Your task to perform on an android device: open sync settings in chrome Image 0: 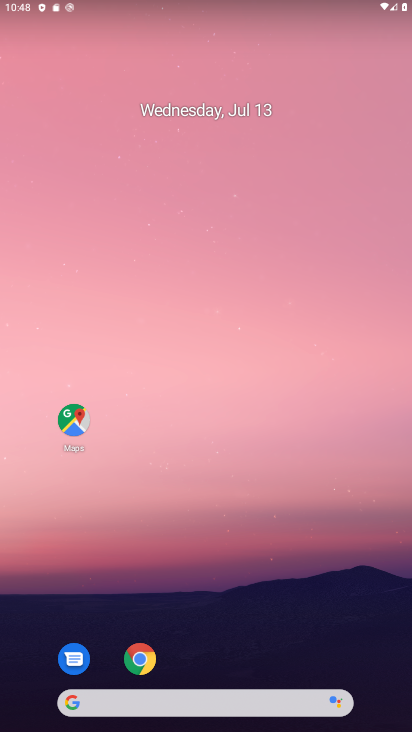
Step 0: click (244, 30)
Your task to perform on an android device: open sync settings in chrome Image 1: 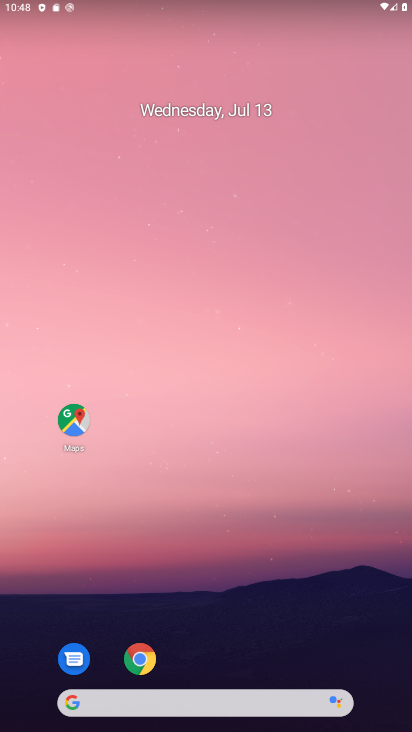
Step 1: drag from (247, 32) to (227, 2)
Your task to perform on an android device: open sync settings in chrome Image 2: 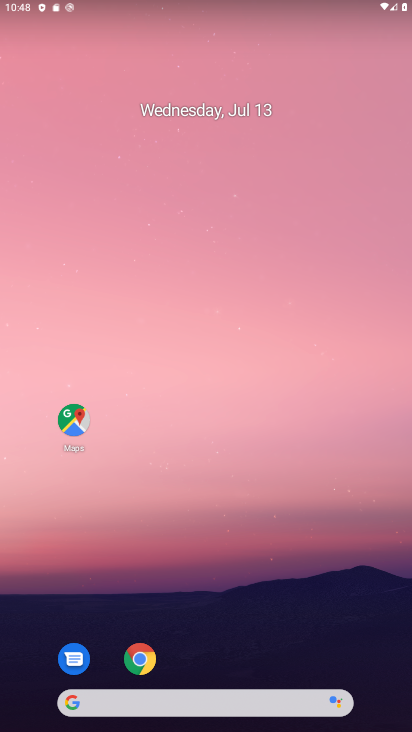
Step 2: drag from (253, 223) to (239, 100)
Your task to perform on an android device: open sync settings in chrome Image 3: 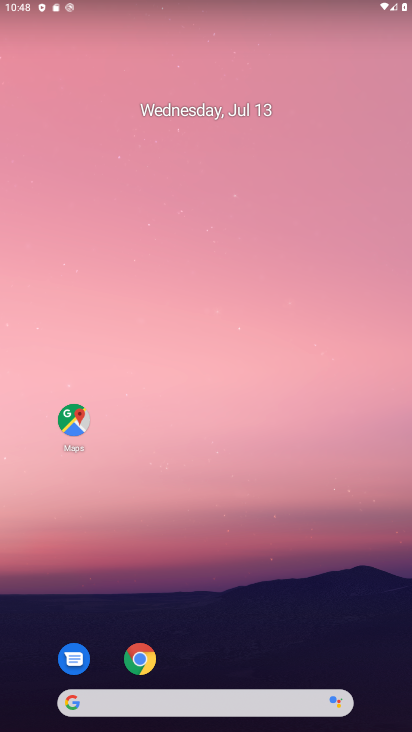
Step 3: drag from (292, 595) to (157, 44)
Your task to perform on an android device: open sync settings in chrome Image 4: 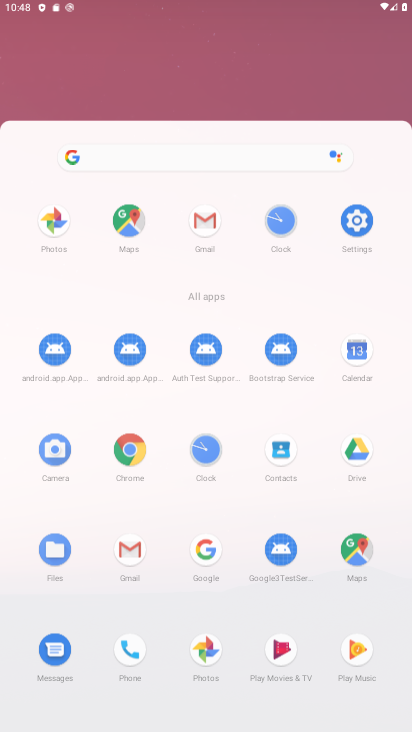
Step 4: drag from (214, 395) to (158, 43)
Your task to perform on an android device: open sync settings in chrome Image 5: 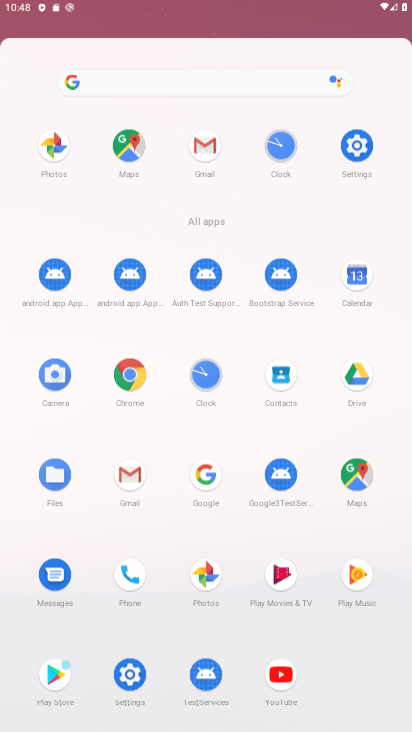
Step 5: drag from (207, 528) to (207, 5)
Your task to perform on an android device: open sync settings in chrome Image 6: 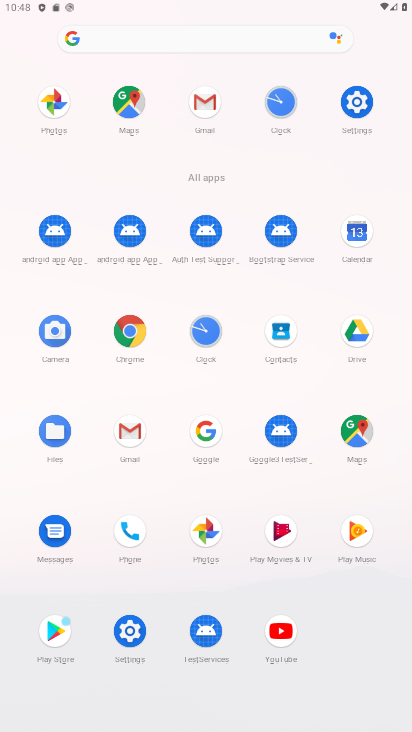
Step 6: click (138, 328)
Your task to perform on an android device: open sync settings in chrome Image 7: 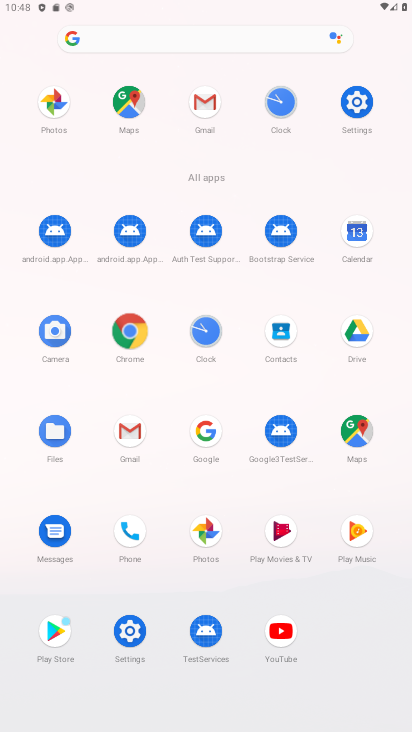
Step 7: click (135, 330)
Your task to perform on an android device: open sync settings in chrome Image 8: 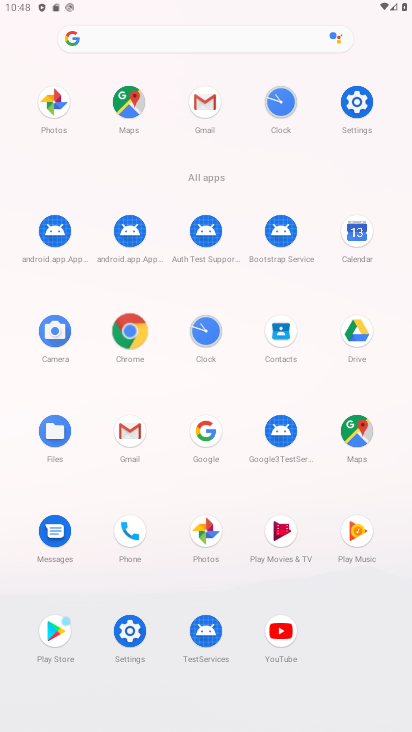
Step 8: click (136, 332)
Your task to perform on an android device: open sync settings in chrome Image 9: 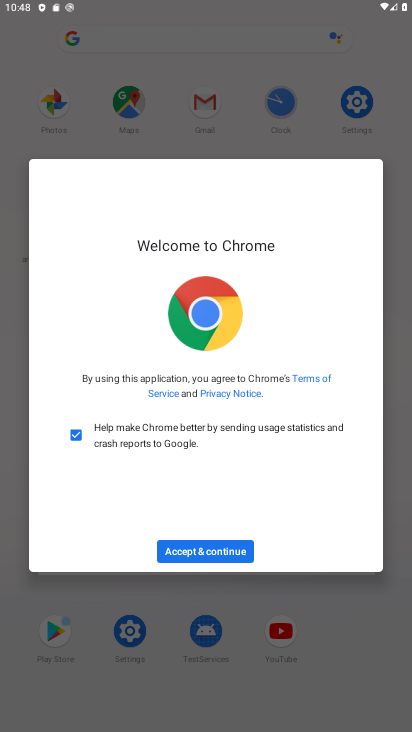
Step 9: click (211, 550)
Your task to perform on an android device: open sync settings in chrome Image 10: 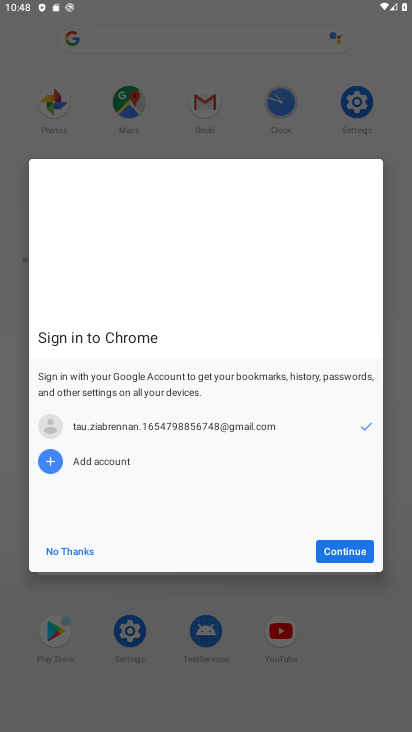
Step 10: click (357, 556)
Your task to perform on an android device: open sync settings in chrome Image 11: 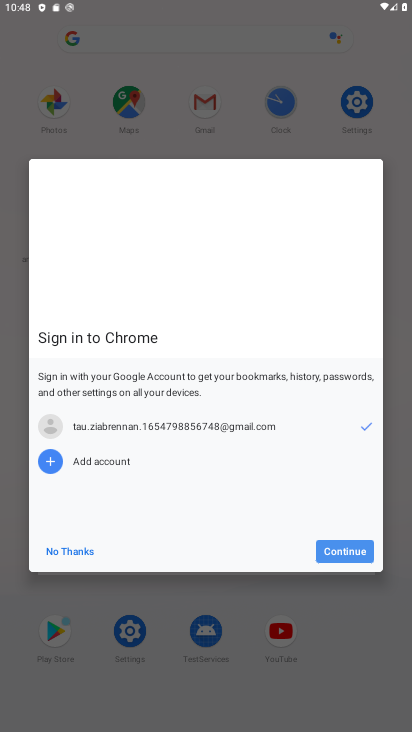
Step 11: click (357, 556)
Your task to perform on an android device: open sync settings in chrome Image 12: 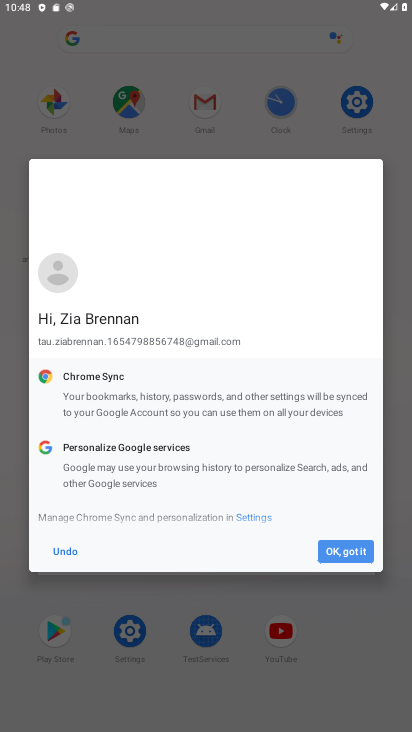
Step 12: click (357, 556)
Your task to perform on an android device: open sync settings in chrome Image 13: 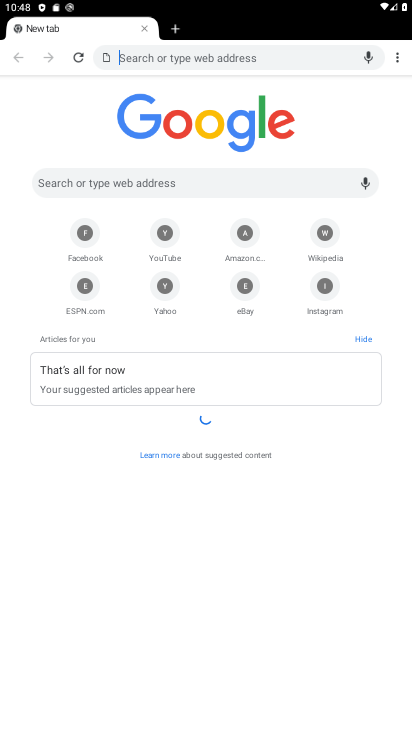
Step 13: drag from (395, 57) to (280, 265)
Your task to perform on an android device: open sync settings in chrome Image 14: 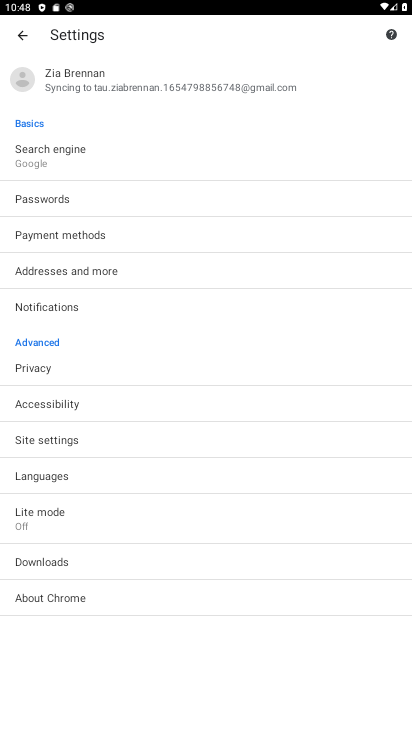
Step 14: click (46, 439)
Your task to perform on an android device: open sync settings in chrome Image 15: 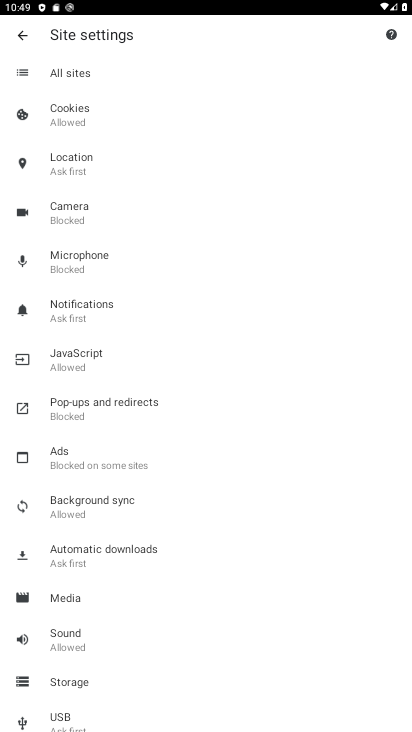
Step 15: click (71, 501)
Your task to perform on an android device: open sync settings in chrome Image 16: 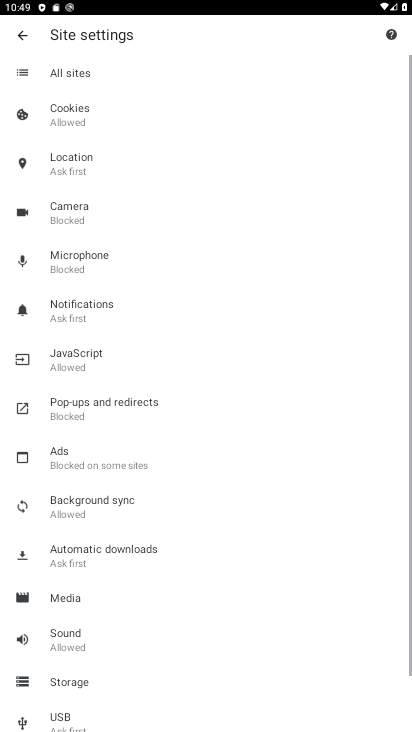
Step 16: click (75, 507)
Your task to perform on an android device: open sync settings in chrome Image 17: 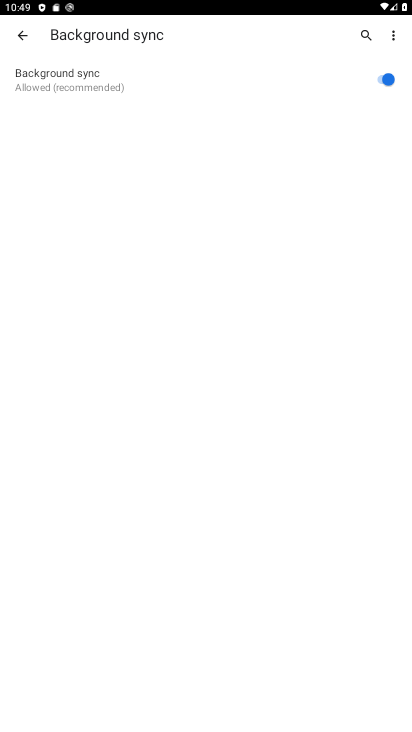
Step 17: task complete